Your task to perform on an android device: toggle wifi Image 0: 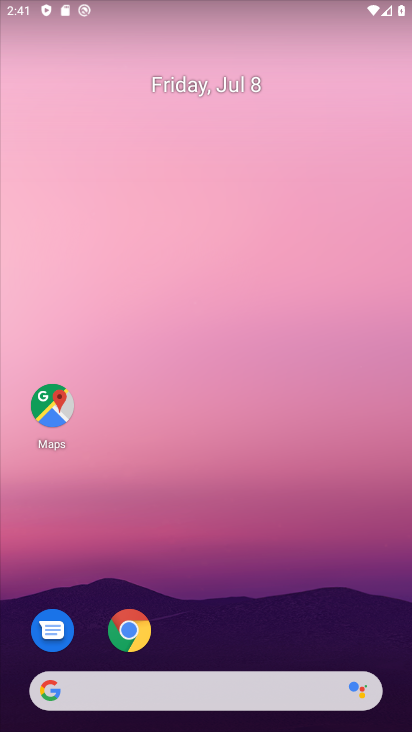
Step 0: drag from (258, 6) to (226, 420)
Your task to perform on an android device: toggle wifi Image 1: 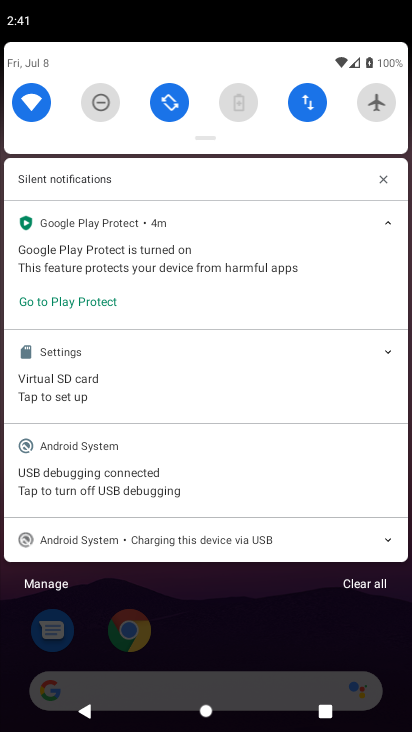
Step 1: click (24, 102)
Your task to perform on an android device: toggle wifi Image 2: 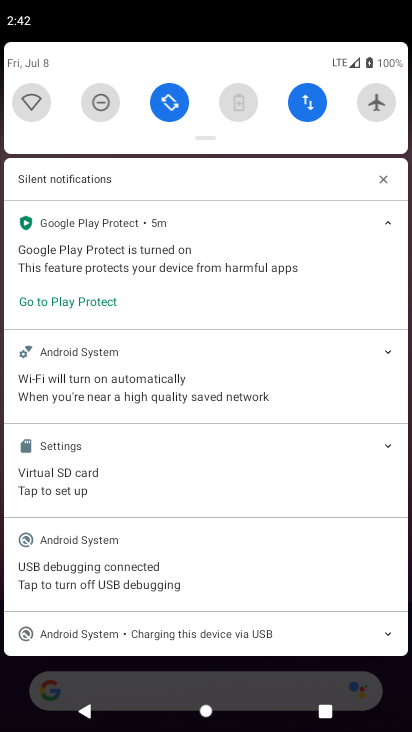
Step 2: task complete